Your task to perform on an android device: change the clock style Image 0: 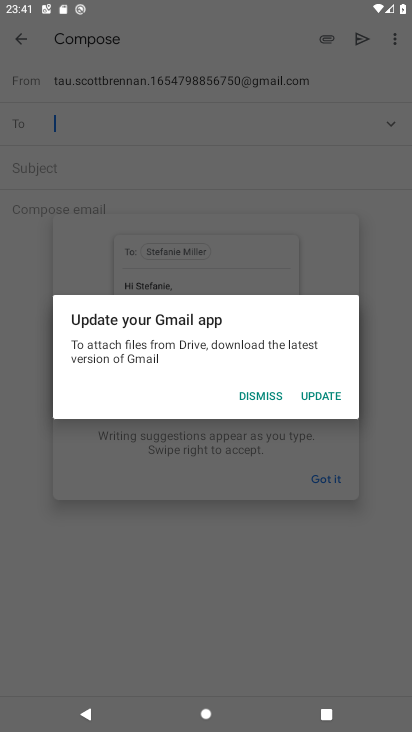
Step 0: press home button
Your task to perform on an android device: change the clock style Image 1: 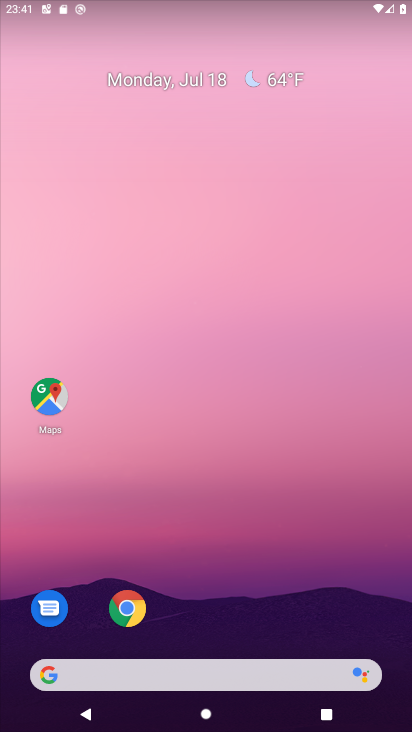
Step 1: drag from (245, 604) to (287, 8)
Your task to perform on an android device: change the clock style Image 2: 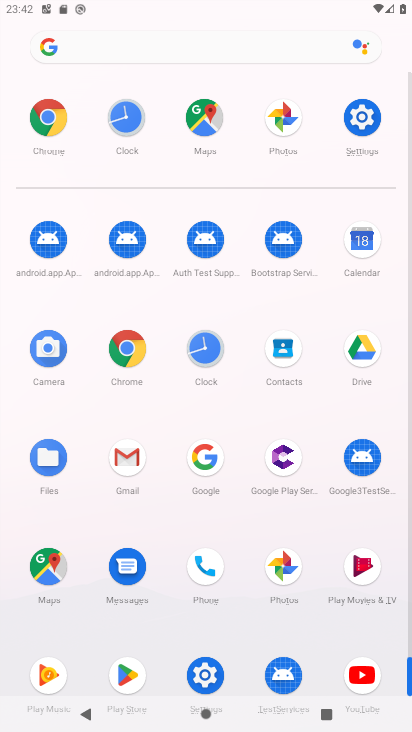
Step 2: click (210, 358)
Your task to perform on an android device: change the clock style Image 3: 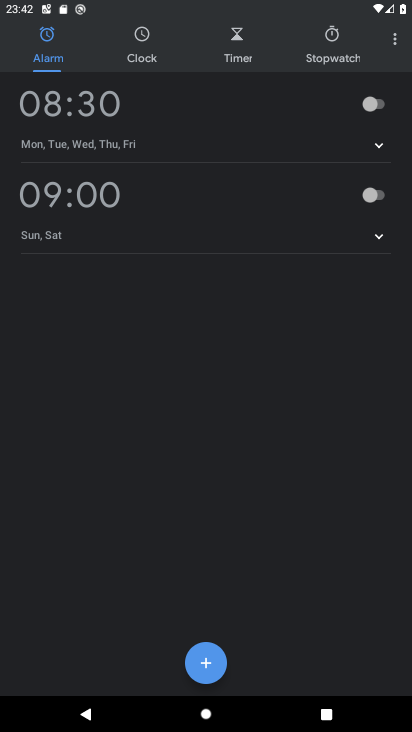
Step 3: click (393, 47)
Your task to perform on an android device: change the clock style Image 4: 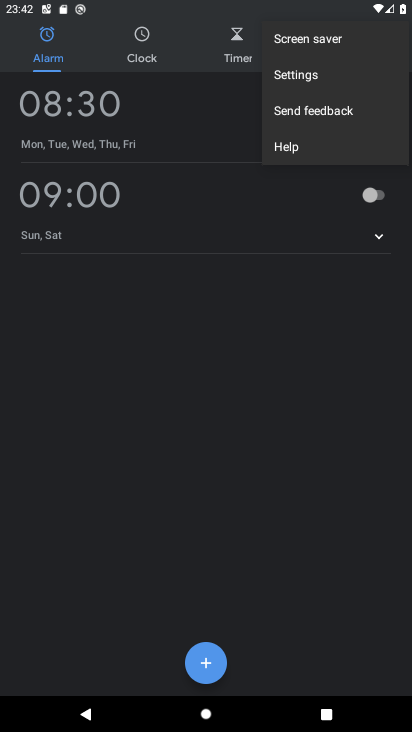
Step 4: click (313, 74)
Your task to perform on an android device: change the clock style Image 5: 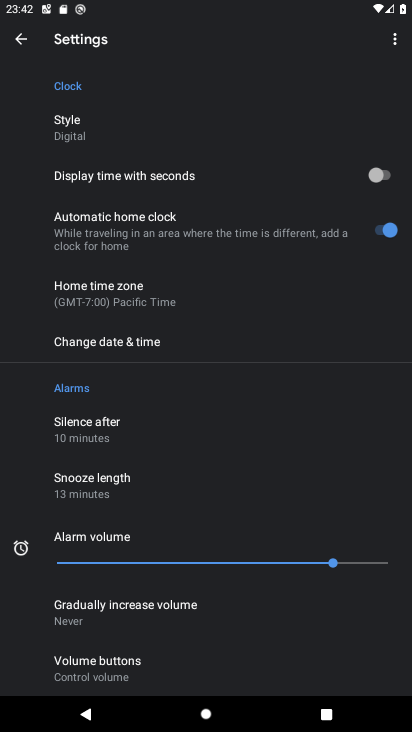
Step 5: click (119, 148)
Your task to perform on an android device: change the clock style Image 6: 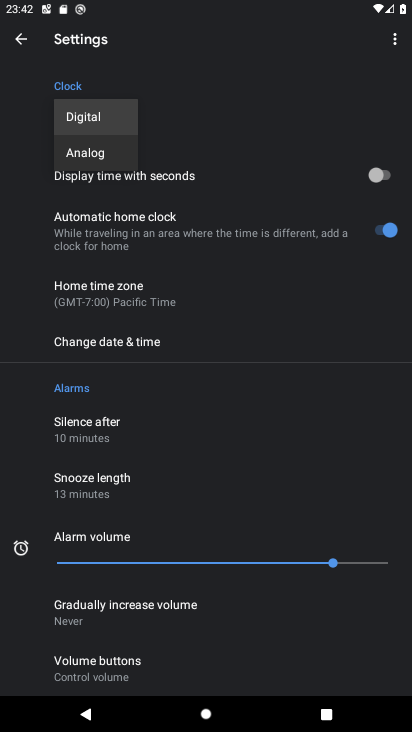
Step 6: click (108, 162)
Your task to perform on an android device: change the clock style Image 7: 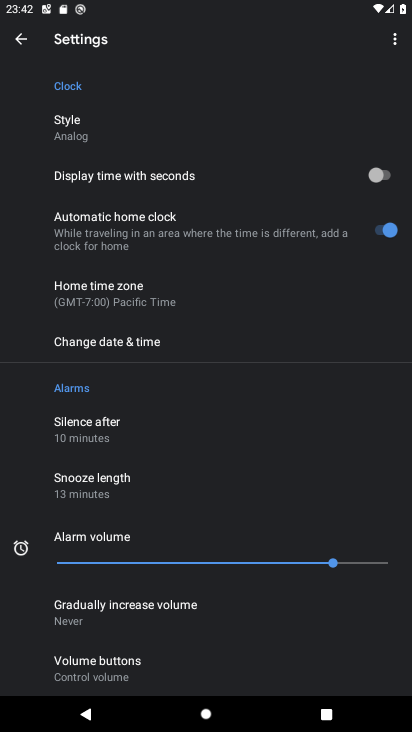
Step 7: task complete